Your task to perform on an android device: open app "VLC for Android" Image 0: 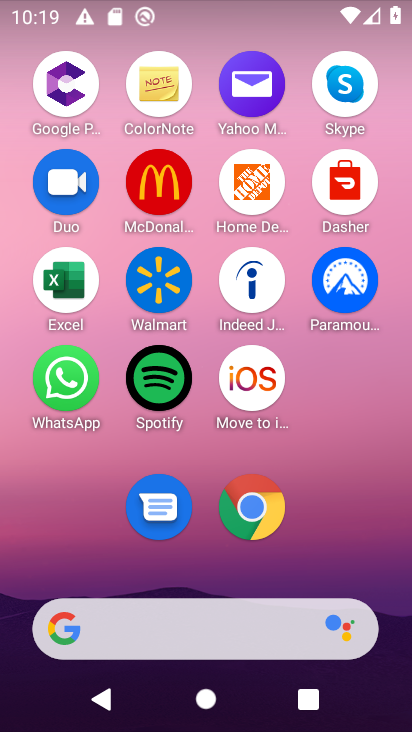
Step 0: drag from (385, 620) to (370, 150)
Your task to perform on an android device: open app "VLC for Android" Image 1: 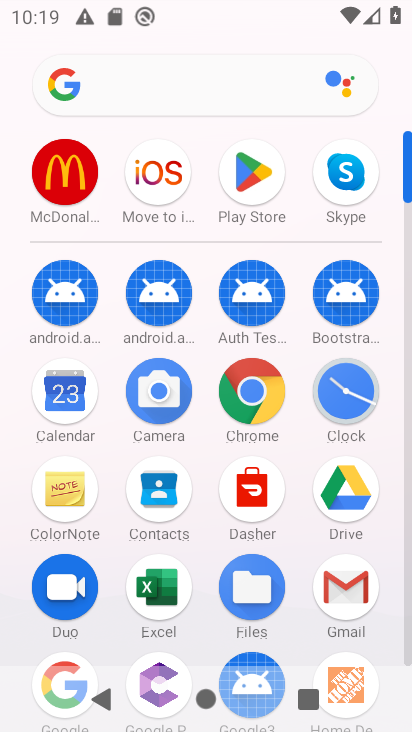
Step 1: click (407, 646)
Your task to perform on an android device: open app "VLC for Android" Image 2: 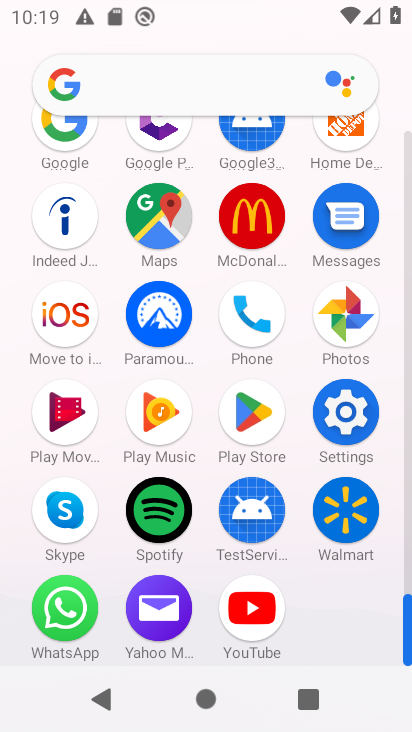
Step 2: click (256, 415)
Your task to perform on an android device: open app "VLC for Android" Image 3: 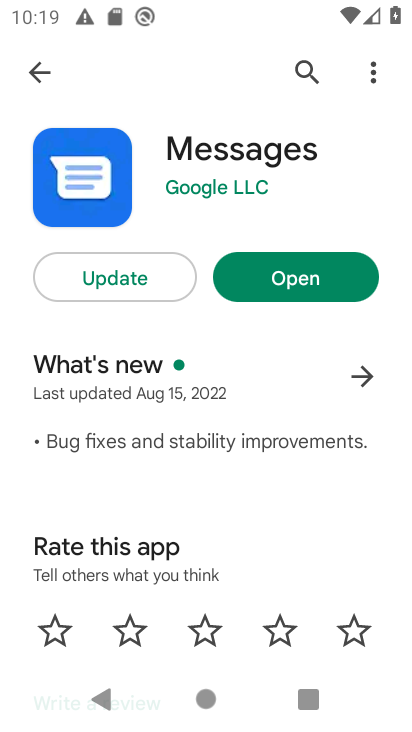
Step 3: click (302, 60)
Your task to perform on an android device: open app "VLC for Android" Image 4: 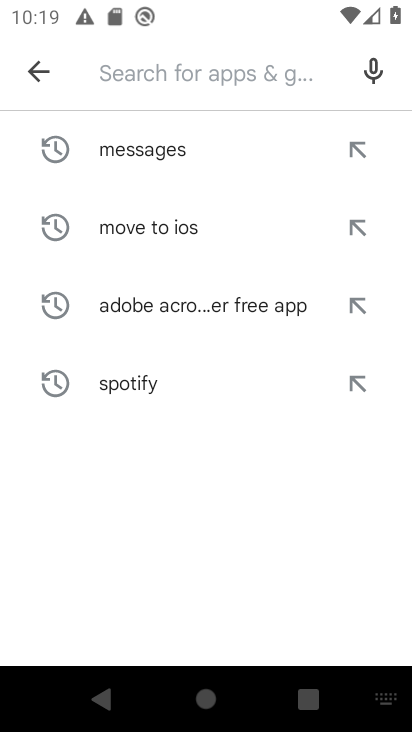
Step 4: type "VLC for Android"
Your task to perform on an android device: open app "VLC for Android" Image 5: 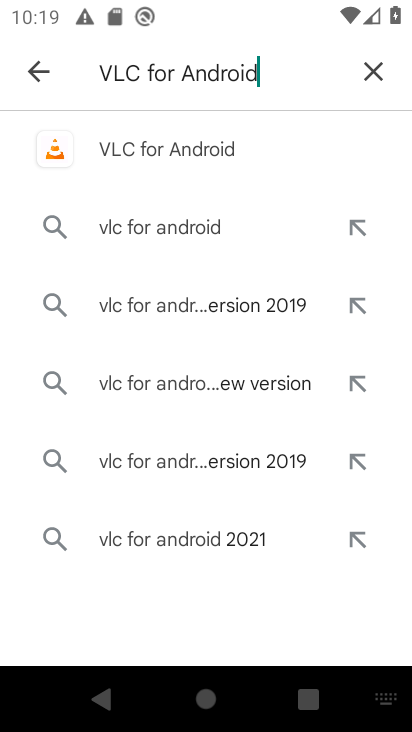
Step 5: click (152, 137)
Your task to perform on an android device: open app "VLC for Android" Image 6: 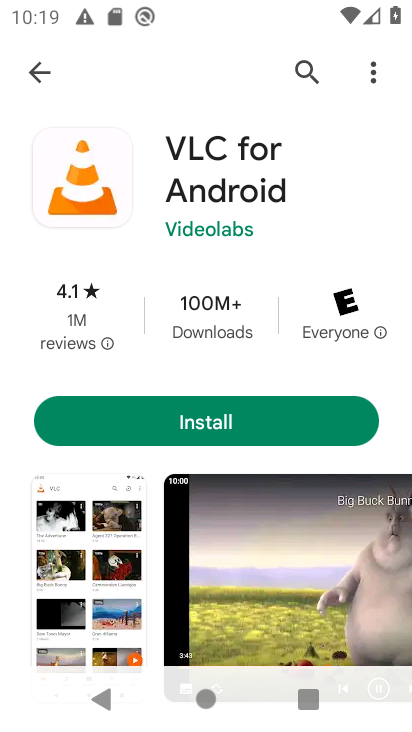
Step 6: task complete